Your task to perform on an android device: change text size in settings app Image 0: 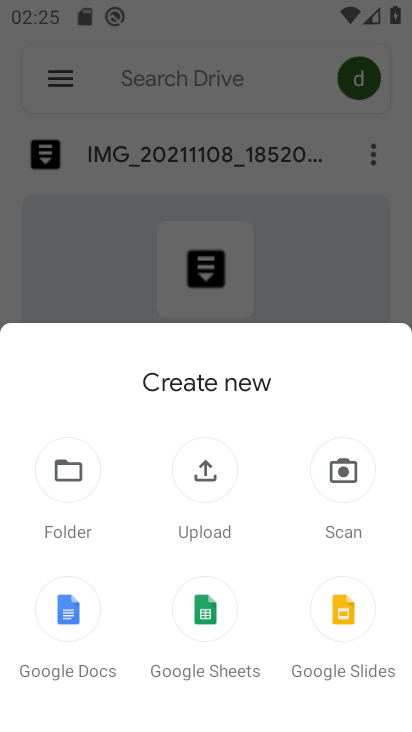
Step 0: press home button
Your task to perform on an android device: change text size in settings app Image 1: 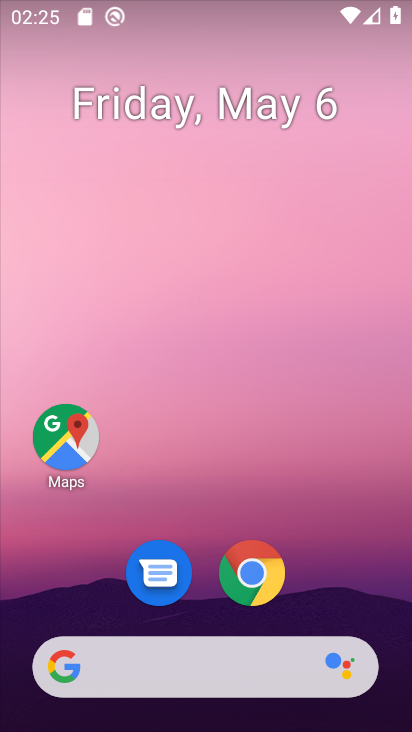
Step 1: drag from (330, 612) to (333, 236)
Your task to perform on an android device: change text size in settings app Image 2: 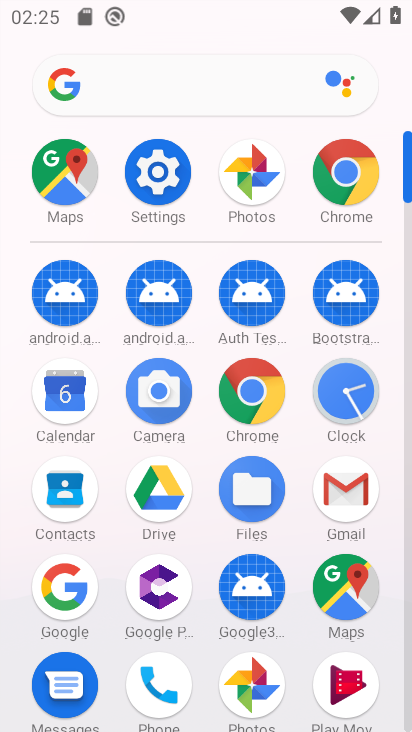
Step 2: click (136, 171)
Your task to perform on an android device: change text size in settings app Image 3: 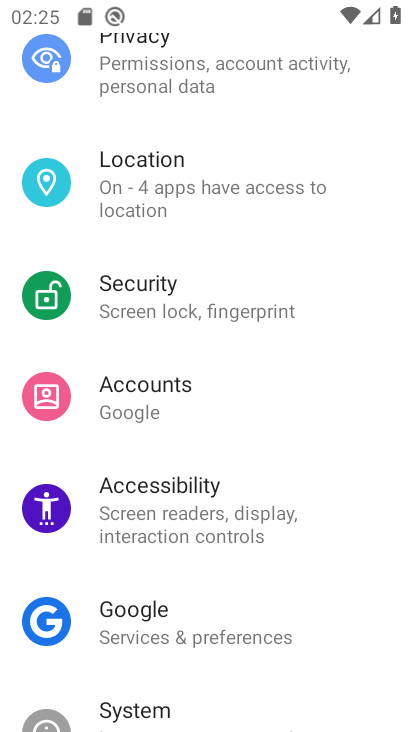
Step 3: click (191, 523)
Your task to perform on an android device: change text size in settings app Image 4: 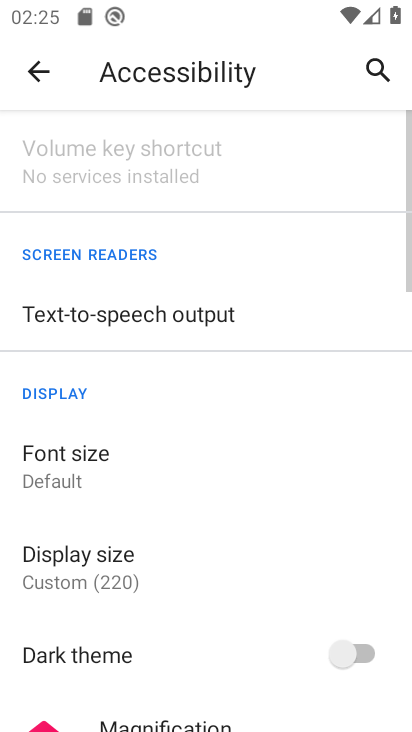
Step 4: click (111, 457)
Your task to perform on an android device: change text size in settings app Image 5: 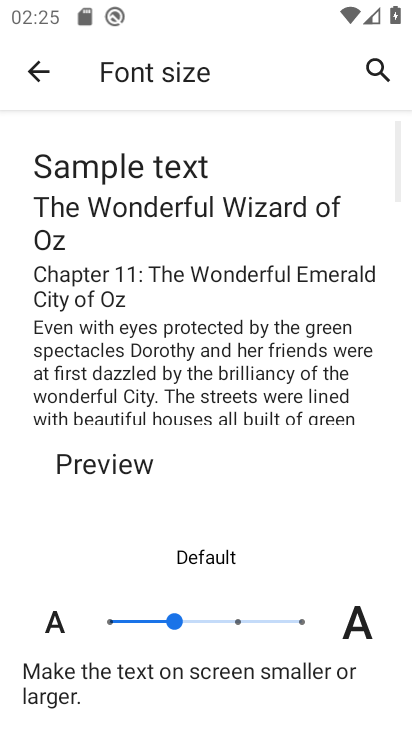
Step 5: click (228, 620)
Your task to perform on an android device: change text size in settings app Image 6: 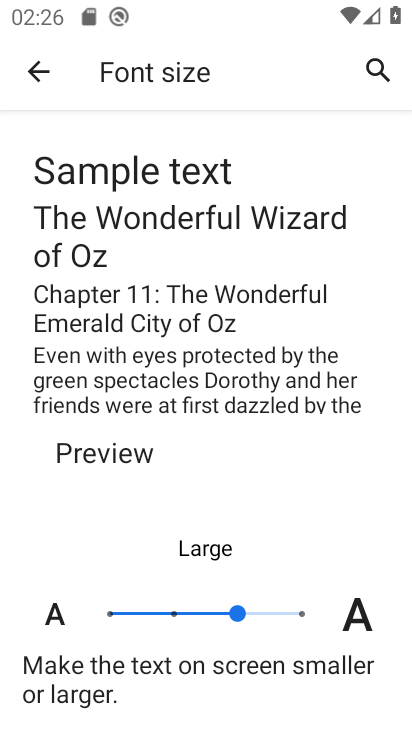
Step 6: task complete